Your task to perform on an android device: turn on priority inbox in the gmail app Image 0: 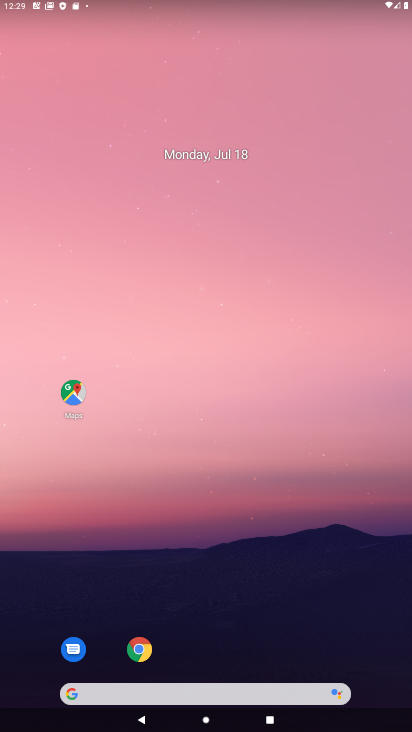
Step 0: drag from (348, 435) to (345, 68)
Your task to perform on an android device: turn on priority inbox in the gmail app Image 1: 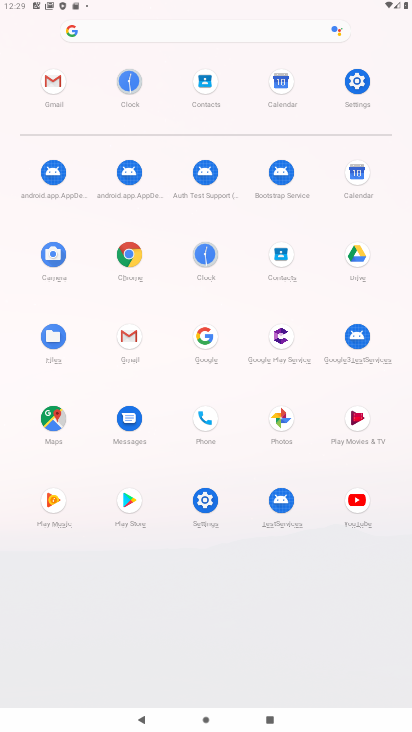
Step 1: click (129, 335)
Your task to perform on an android device: turn on priority inbox in the gmail app Image 2: 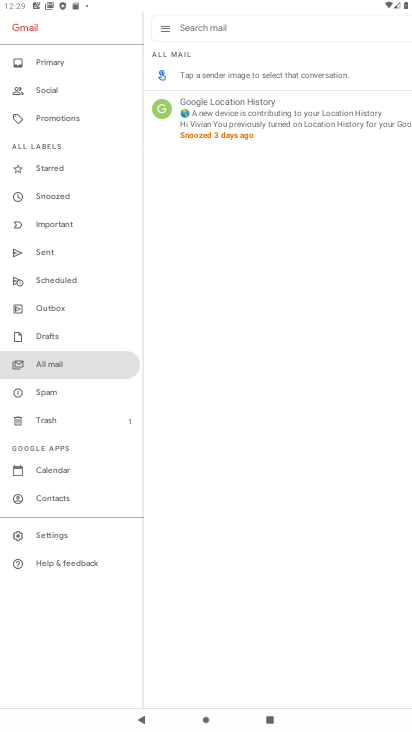
Step 2: click (51, 535)
Your task to perform on an android device: turn on priority inbox in the gmail app Image 3: 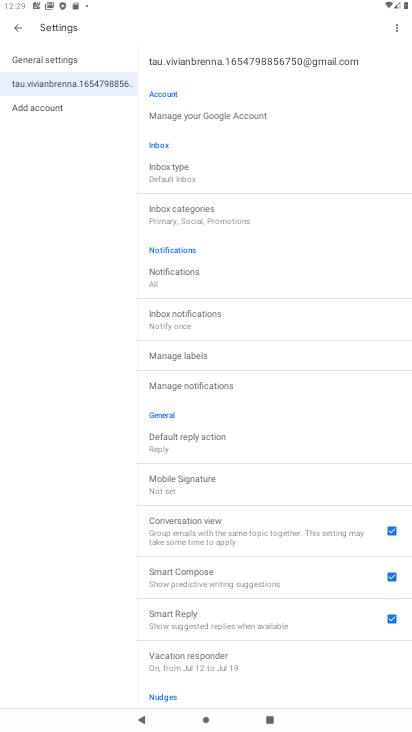
Step 3: click (173, 173)
Your task to perform on an android device: turn on priority inbox in the gmail app Image 4: 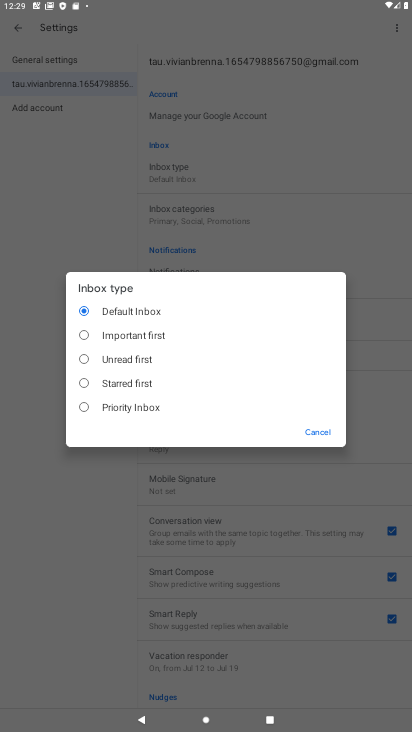
Step 4: click (81, 411)
Your task to perform on an android device: turn on priority inbox in the gmail app Image 5: 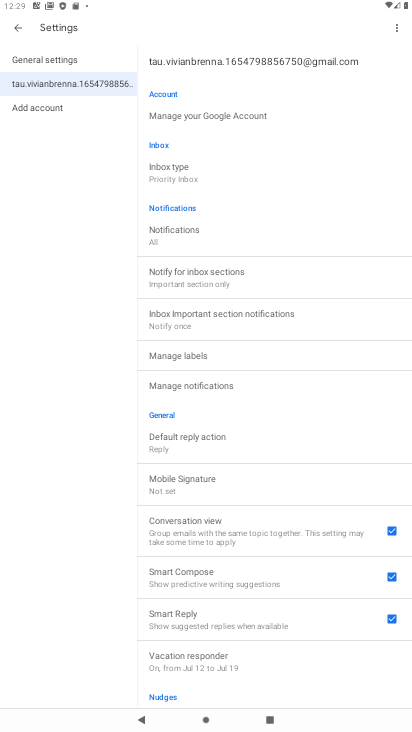
Step 5: task complete